Your task to perform on an android device: open wifi settings Image 0: 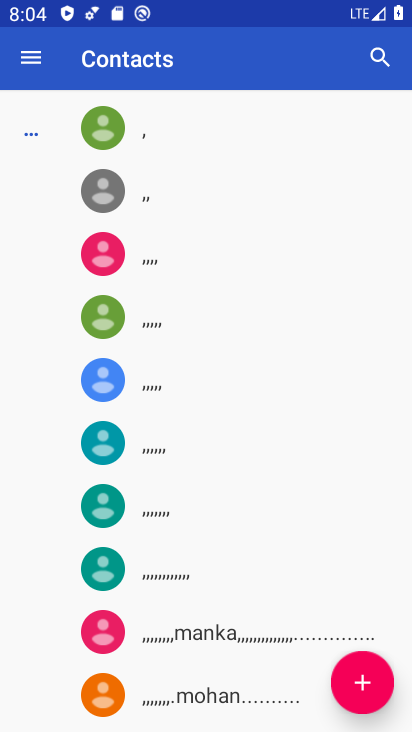
Step 0: press home button
Your task to perform on an android device: open wifi settings Image 1: 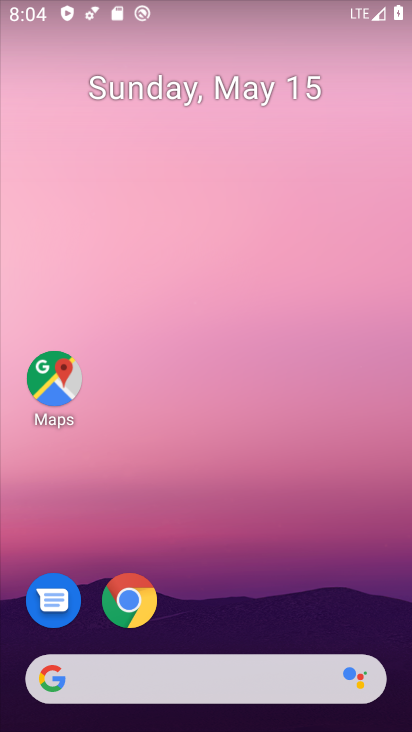
Step 1: drag from (178, 371) to (43, 49)
Your task to perform on an android device: open wifi settings Image 2: 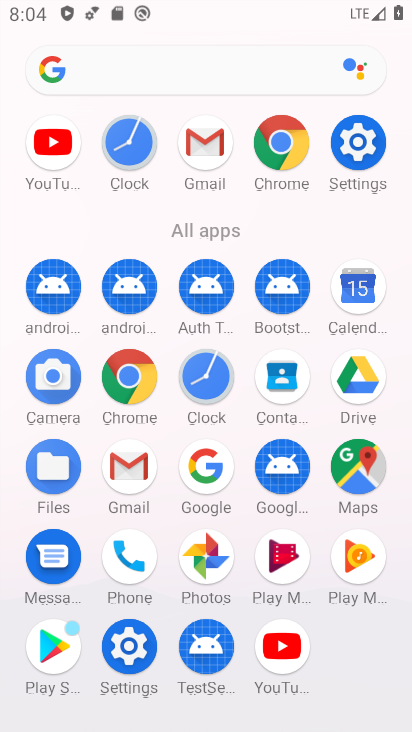
Step 2: click (358, 150)
Your task to perform on an android device: open wifi settings Image 3: 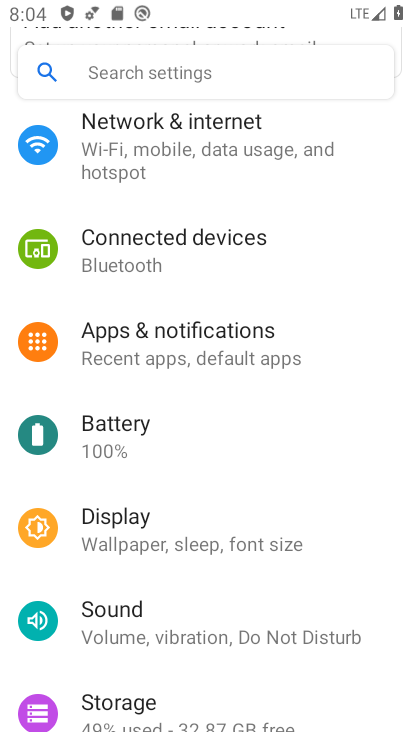
Step 3: click (126, 152)
Your task to perform on an android device: open wifi settings Image 4: 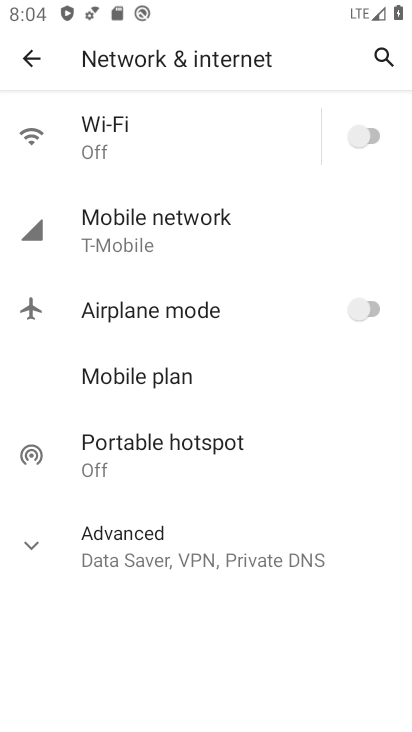
Step 4: click (92, 145)
Your task to perform on an android device: open wifi settings Image 5: 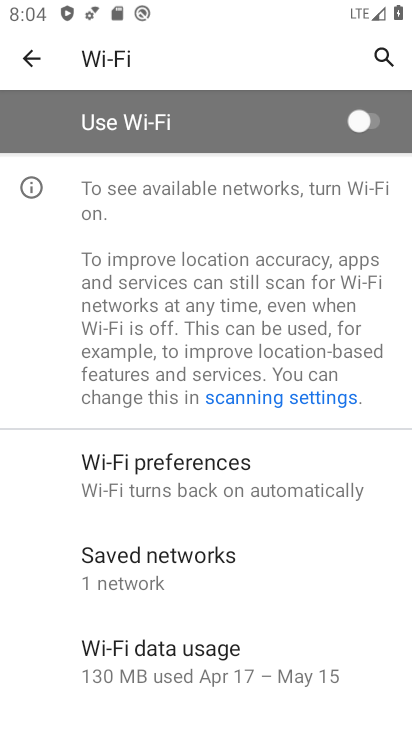
Step 5: task complete